Your task to perform on an android device: turn off javascript in the chrome app Image 0: 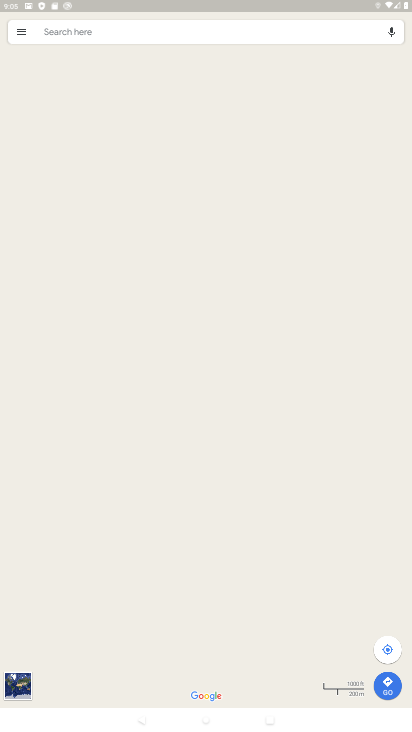
Step 0: press home button
Your task to perform on an android device: turn off javascript in the chrome app Image 1: 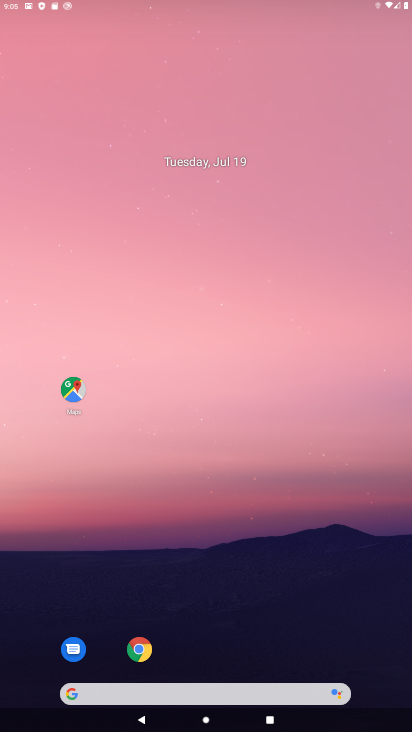
Step 1: drag from (376, 658) to (223, 87)
Your task to perform on an android device: turn off javascript in the chrome app Image 2: 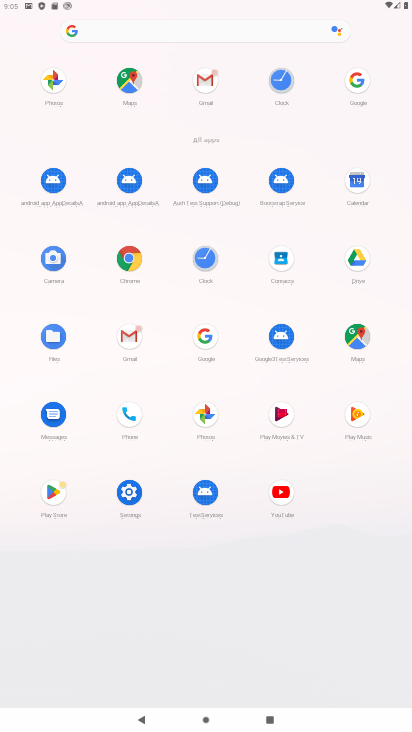
Step 2: click (129, 260)
Your task to perform on an android device: turn off javascript in the chrome app Image 3: 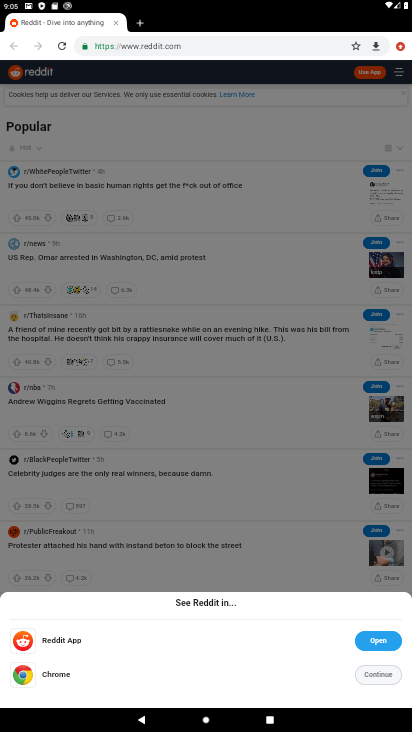
Step 3: press back button
Your task to perform on an android device: turn off javascript in the chrome app Image 4: 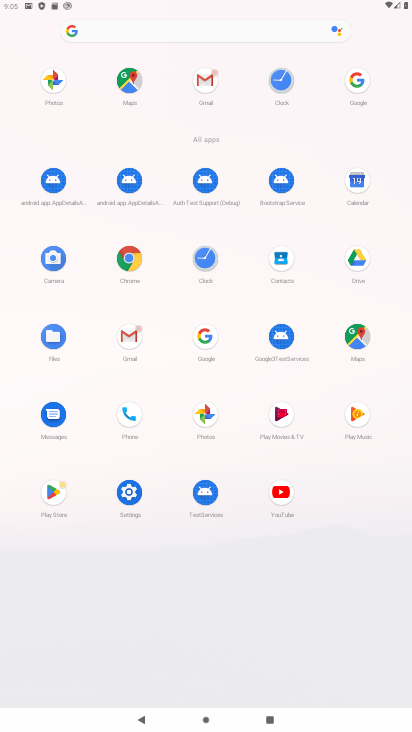
Step 4: click (131, 262)
Your task to perform on an android device: turn off javascript in the chrome app Image 5: 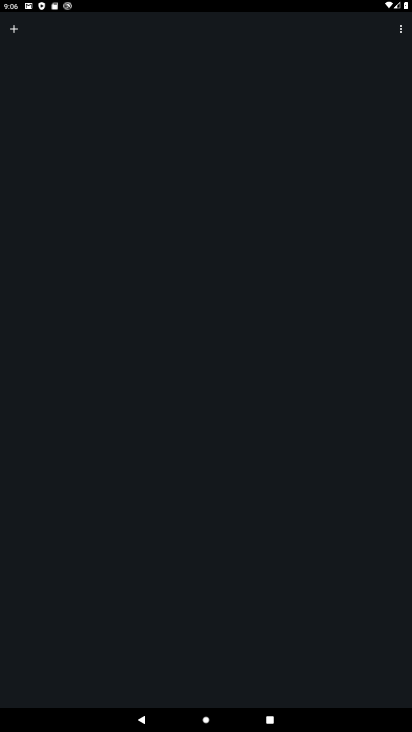
Step 5: click (397, 28)
Your task to perform on an android device: turn off javascript in the chrome app Image 6: 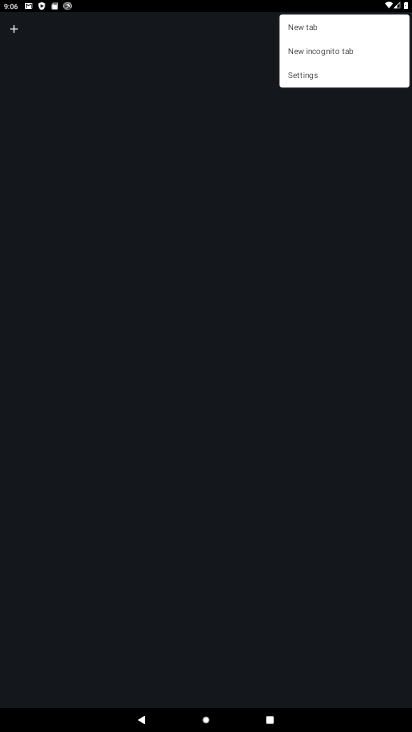
Step 6: click (323, 73)
Your task to perform on an android device: turn off javascript in the chrome app Image 7: 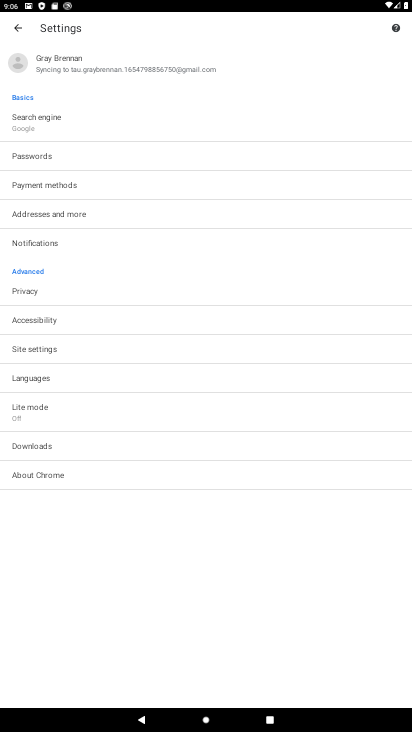
Step 7: click (50, 355)
Your task to perform on an android device: turn off javascript in the chrome app Image 8: 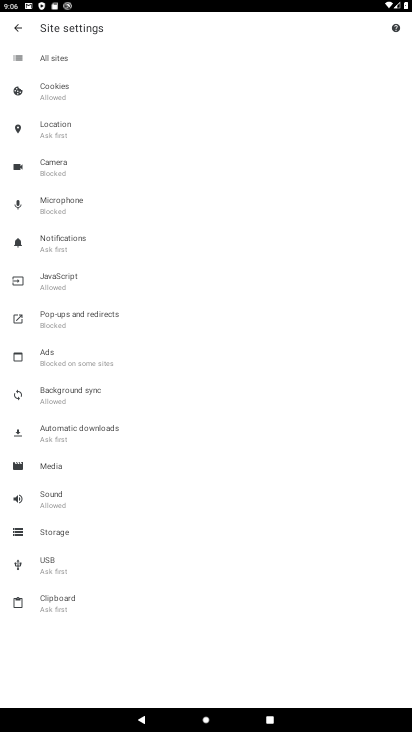
Step 8: click (66, 285)
Your task to perform on an android device: turn off javascript in the chrome app Image 9: 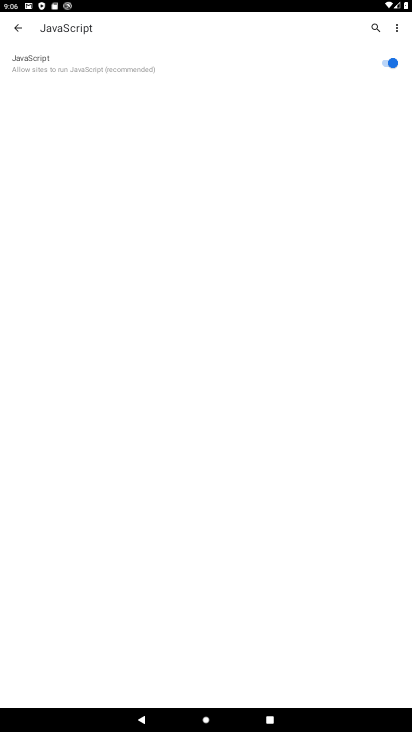
Step 9: click (378, 61)
Your task to perform on an android device: turn off javascript in the chrome app Image 10: 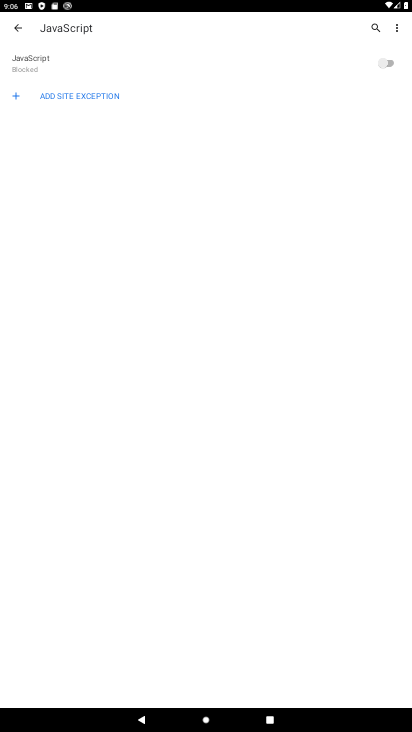
Step 10: task complete